Your task to perform on an android device: Show me popular games on the Play Store Image 0: 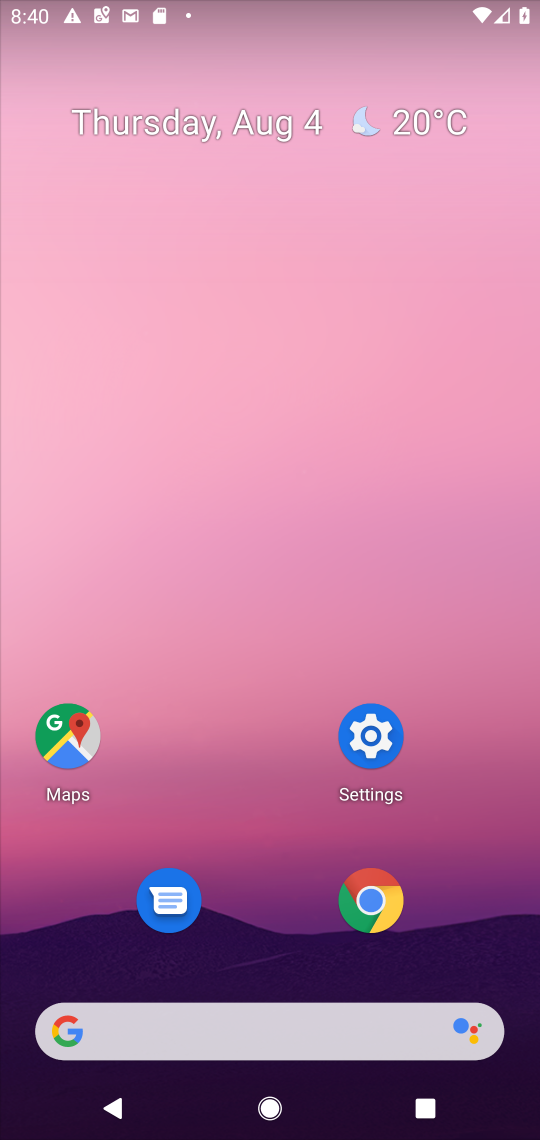
Step 0: drag from (238, 1037) to (421, 104)
Your task to perform on an android device: Show me popular games on the Play Store Image 1: 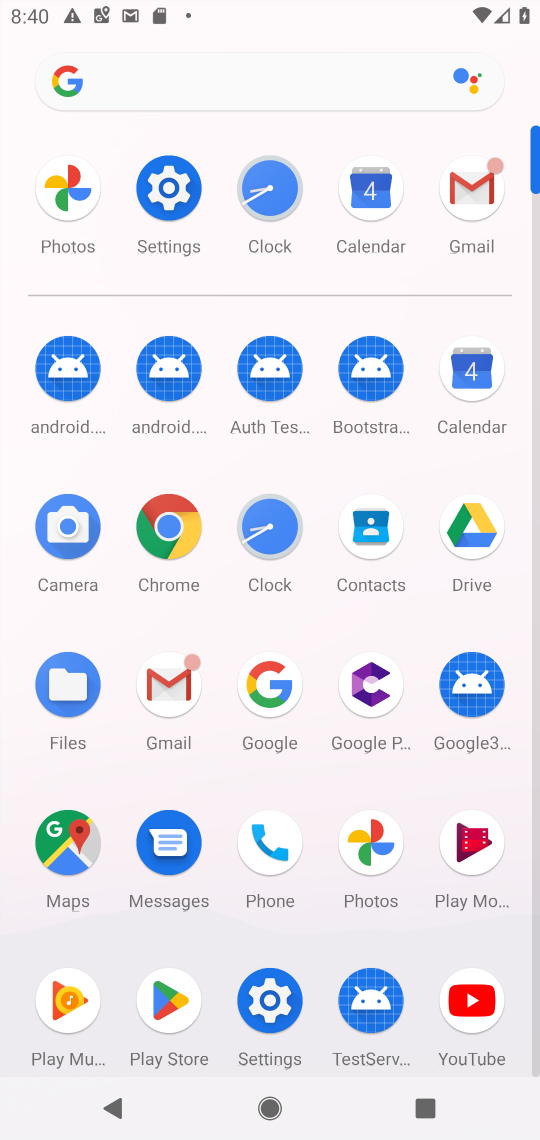
Step 1: click (167, 993)
Your task to perform on an android device: Show me popular games on the Play Store Image 2: 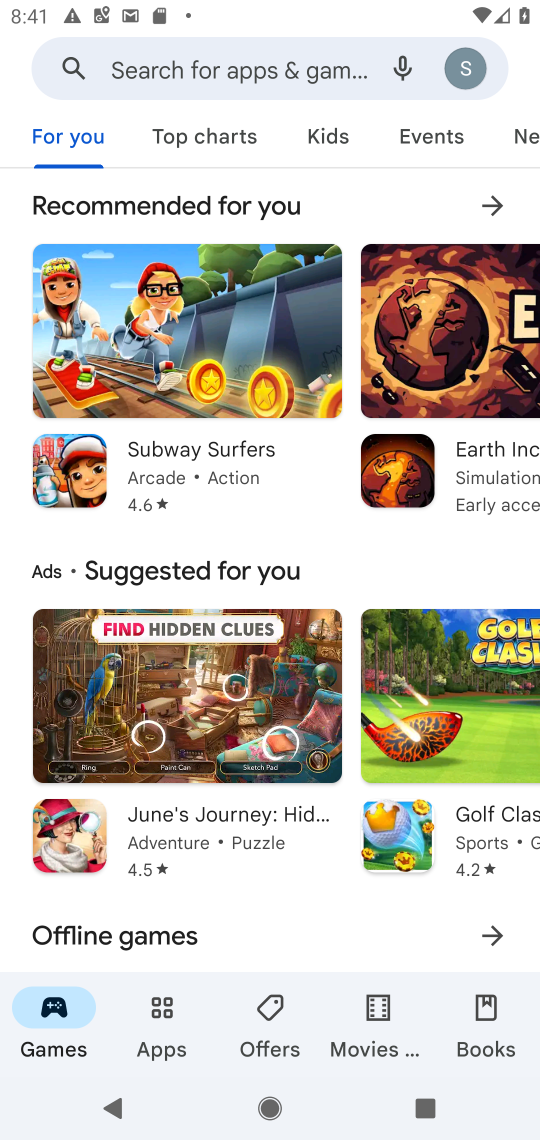
Step 2: task complete